Your task to perform on an android device: set the timer Image 0: 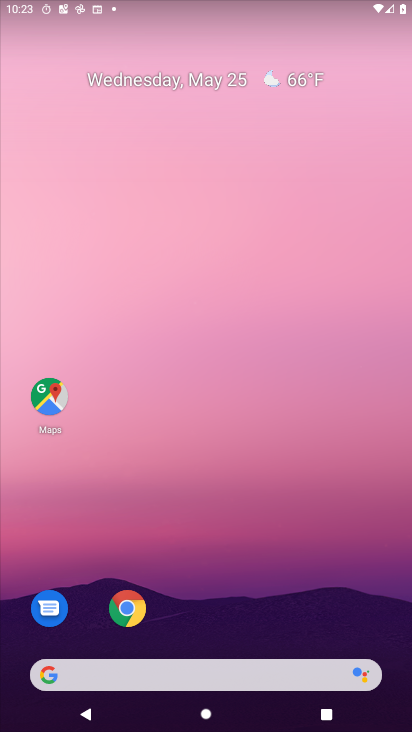
Step 0: drag from (218, 727) to (213, 53)
Your task to perform on an android device: set the timer Image 1: 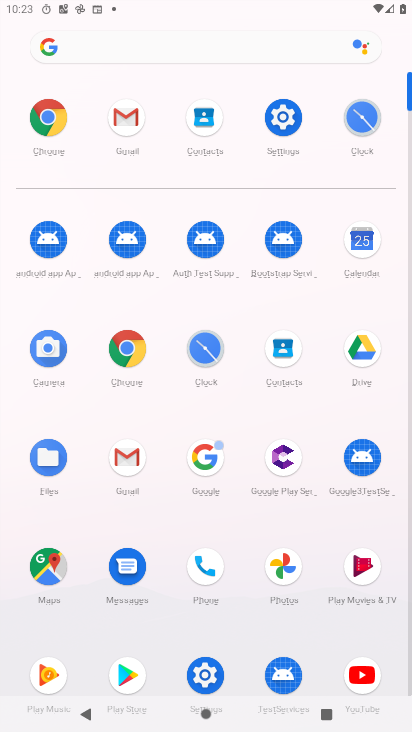
Step 1: click (207, 351)
Your task to perform on an android device: set the timer Image 2: 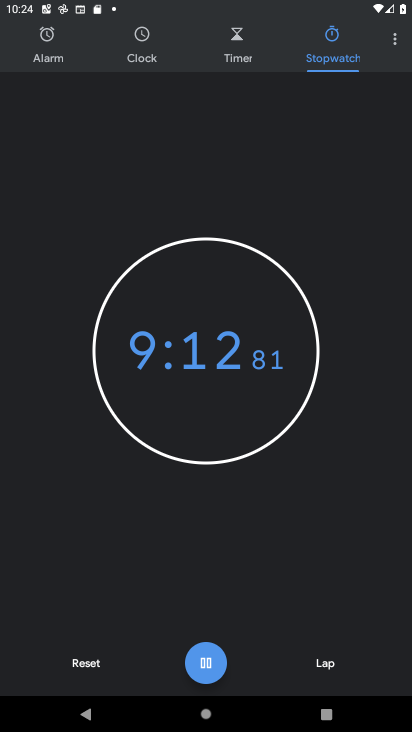
Step 2: click (90, 661)
Your task to perform on an android device: set the timer Image 3: 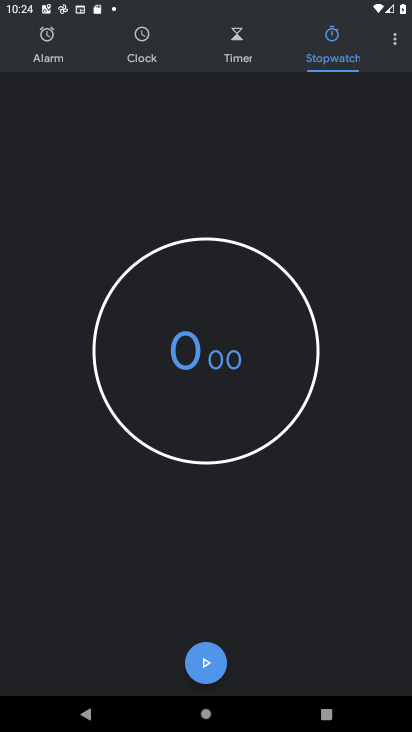
Step 3: type "55"
Your task to perform on an android device: set the timer Image 4: 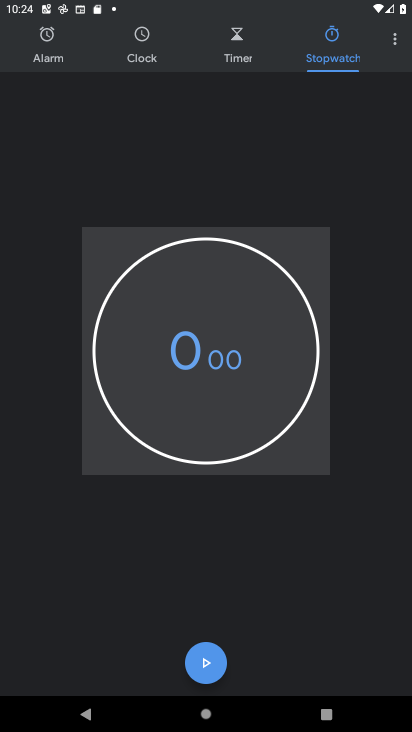
Step 4: click (245, 358)
Your task to perform on an android device: set the timer Image 5: 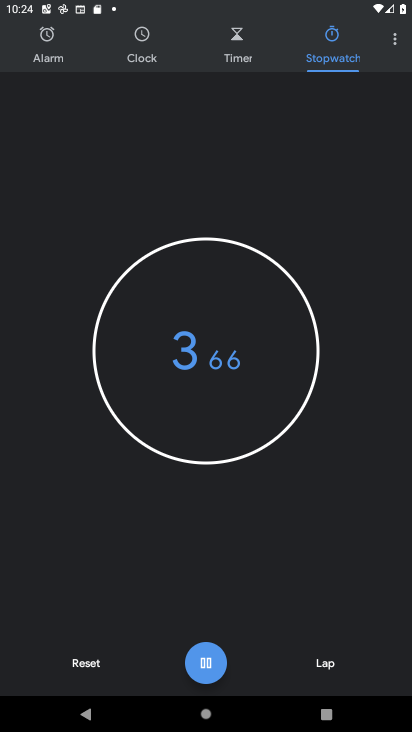
Step 5: type "444"
Your task to perform on an android device: set the timer Image 6: 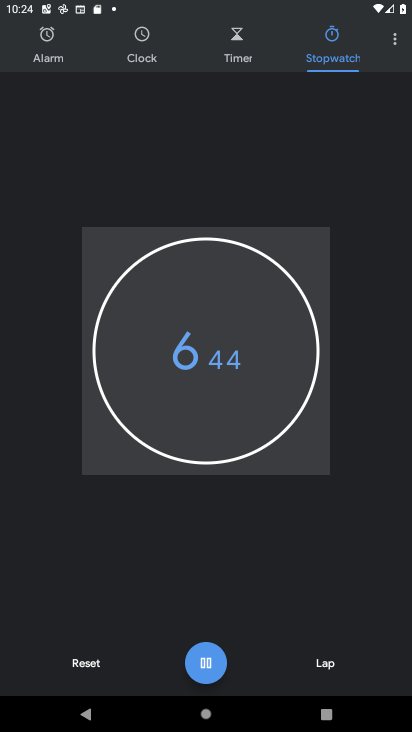
Step 6: task complete